Your task to perform on an android device: Toggle the flashlight Image 0: 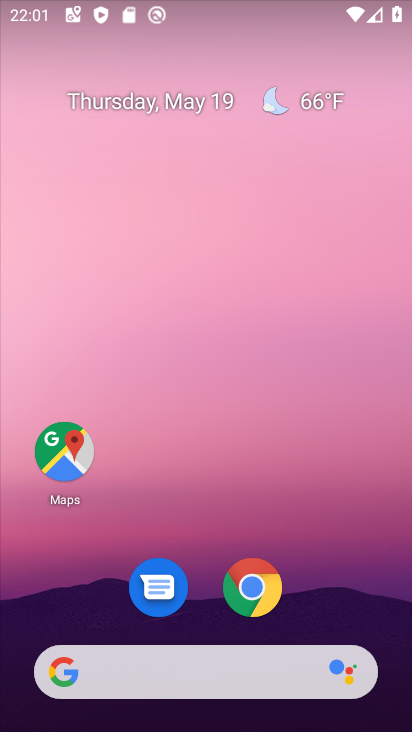
Step 0: press home button
Your task to perform on an android device: Toggle the flashlight Image 1: 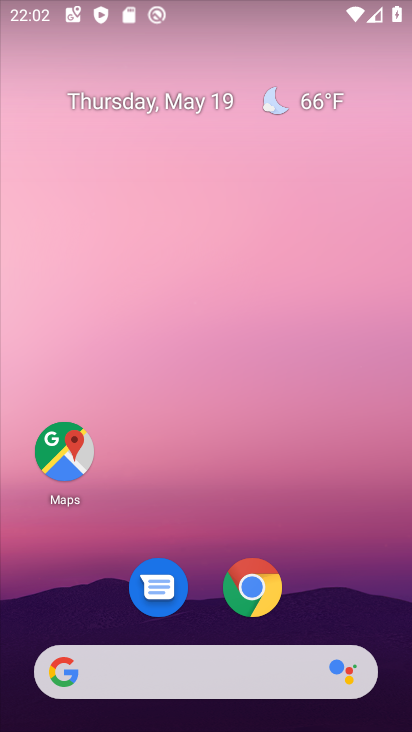
Step 1: drag from (244, 699) to (224, 185)
Your task to perform on an android device: Toggle the flashlight Image 2: 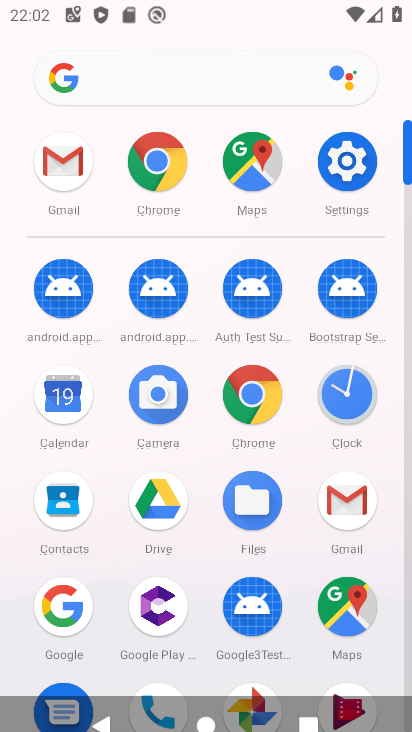
Step 2: click (343, 163)
Your task to perform on an android device: Toggle the flashlight Image 3: 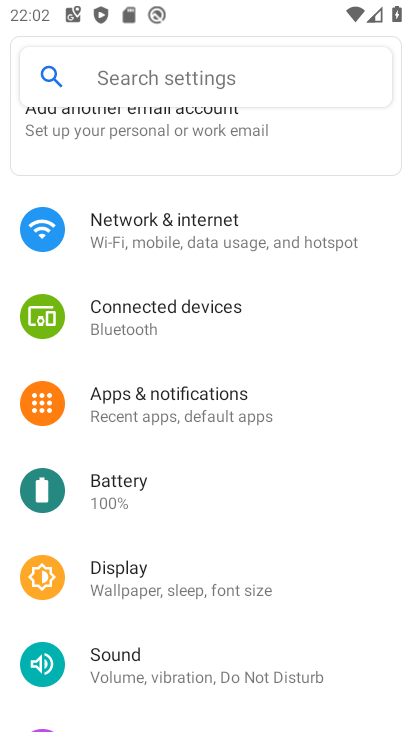
Step 3: click (179, 71)
Your task to perform on an android device: Toggle the flashlight Image 4: 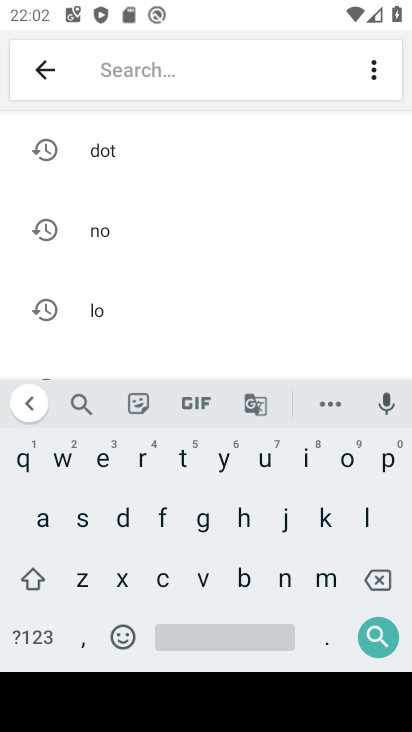
Step 4: click (164, 522)
Your task to perform on an android device: Toggle the flashlight Image 5: 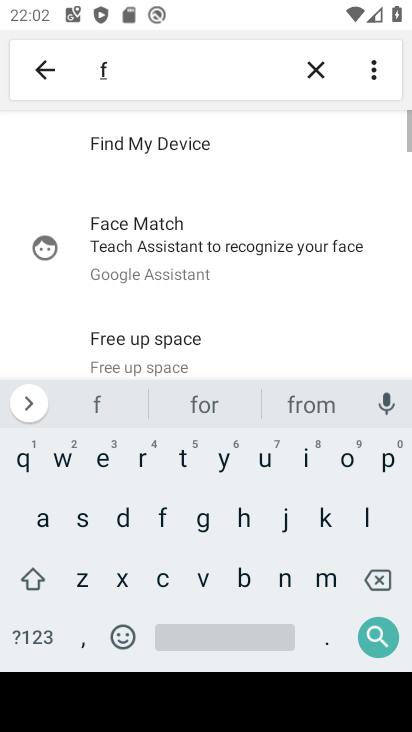
Step 5: click (363, 505)
Your task to perform on an android device: Toggle the flashlight Image 6: 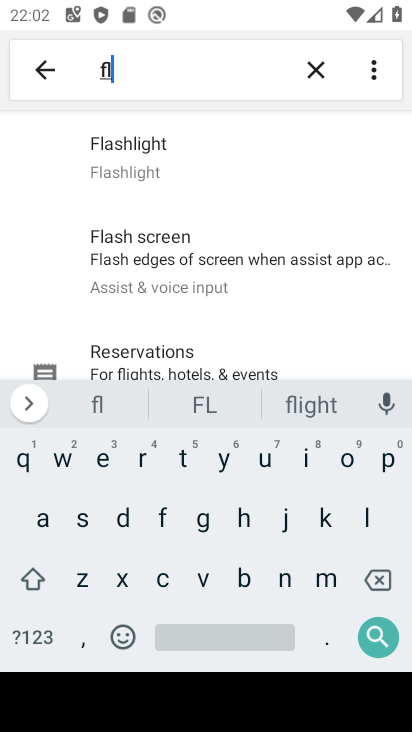
Step 6: click (195, 165)
Your task to perform on an android device: Toggle the flashlight Image 7: 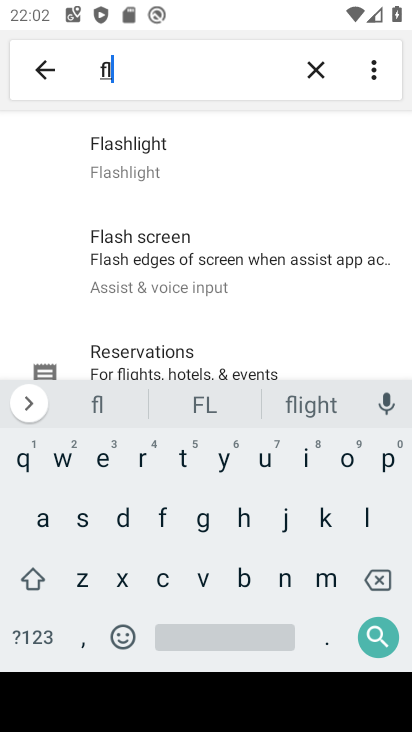
Step 7: task complete